Your task to perform on an android device: View the shopping cart on walmart.com. Search for lenovo thinkpad on walmart.com, select the first entry, and add it to the cart. Image 0: 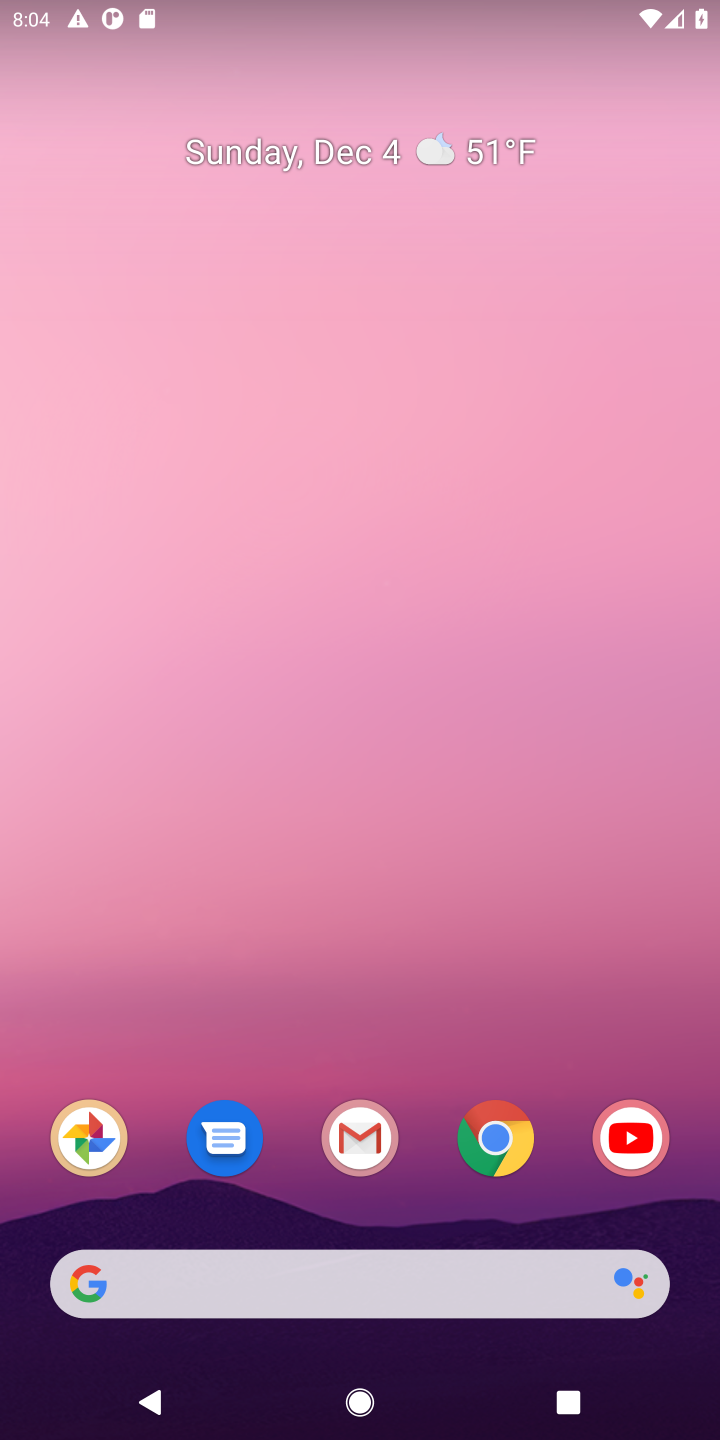
Step 0: click (487, 1135)
Your task to perform on an android device: View the shopping cart on walmart.com. Search for lenovo thinkpad on walmart.com, select the first entry, and add it to the cart. Image 1: 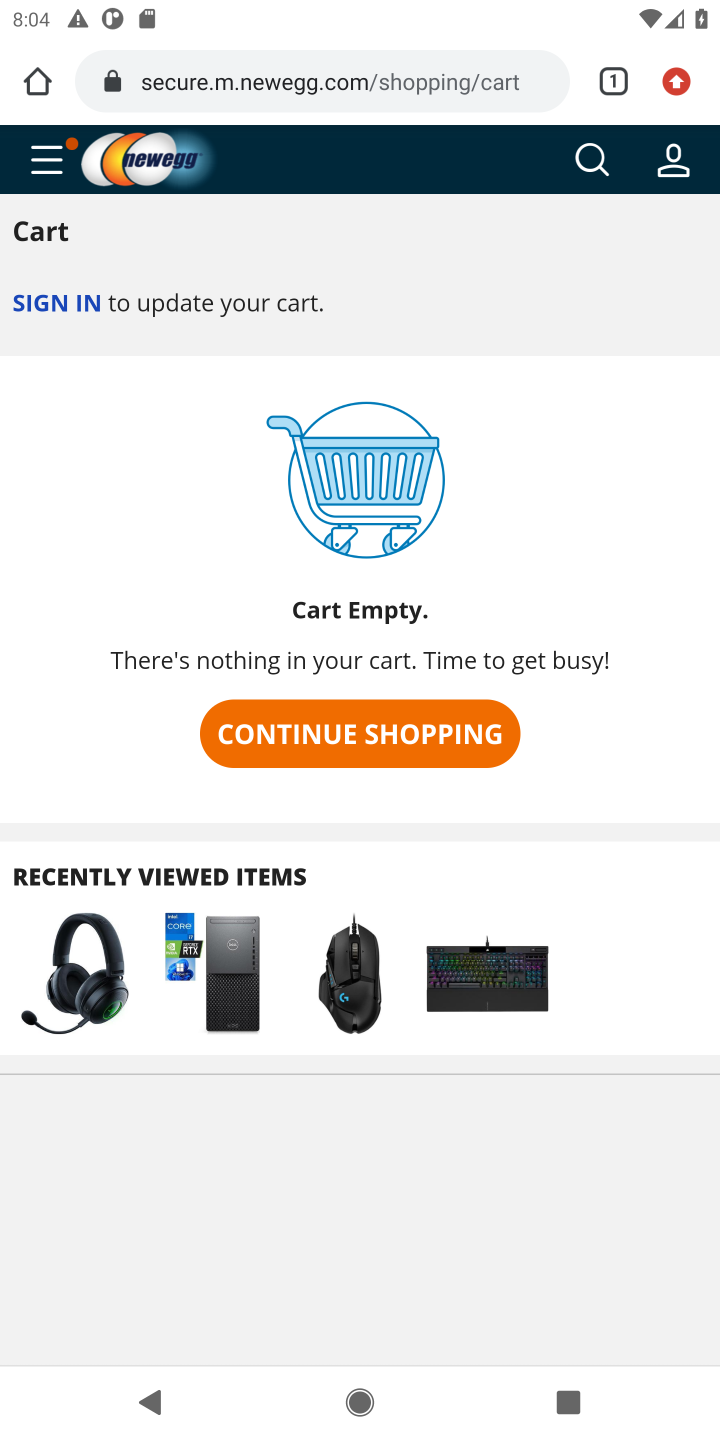
Step 1: click (590, 162)
Your task to perform on an android device: View the shopping cart on walmart.com. Search for lenovo thinkpad on walmart.com, select the first entry, and add it to the cart. Image 2: 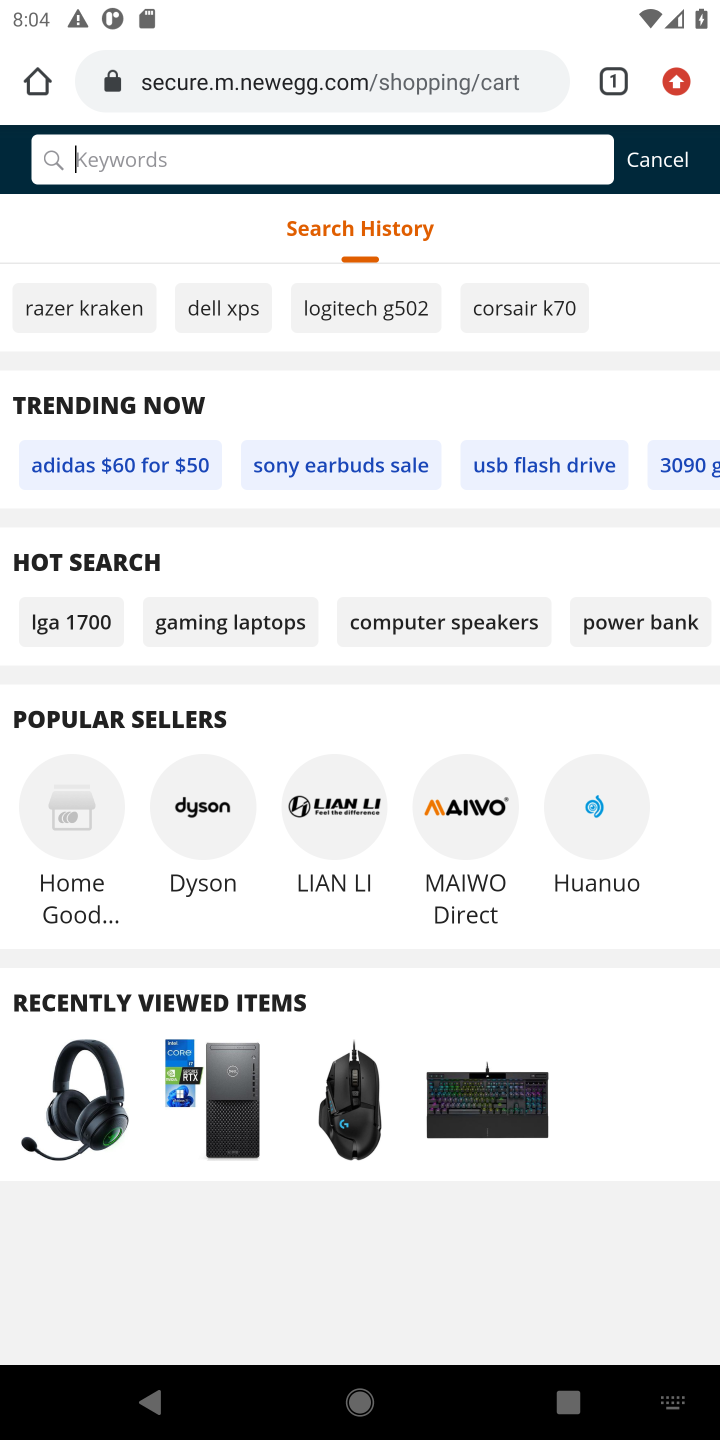
Step 2: click (429, 74)
Your task to perform on an android device: View the shopping cart on walmart.com. Search for lenovo thinkpad on walmart.com, select the first entry, and add it to the cart. Image 3: 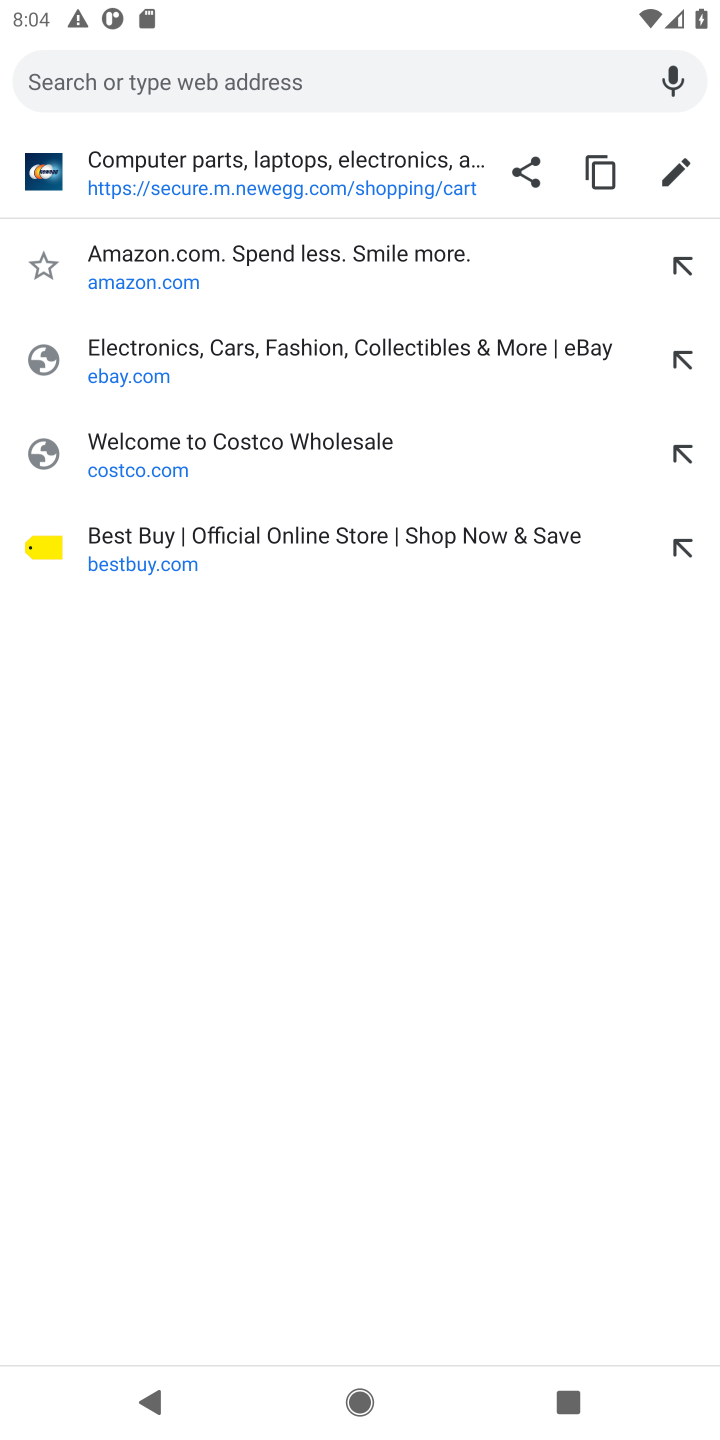
Step 3: type "walmart.com"
Your task to perform on an android device: View the shopping cart on walmart.com. Search for lenovo thinkpad on walmart.com, select the first entry, and add it to the cart. Image 4: 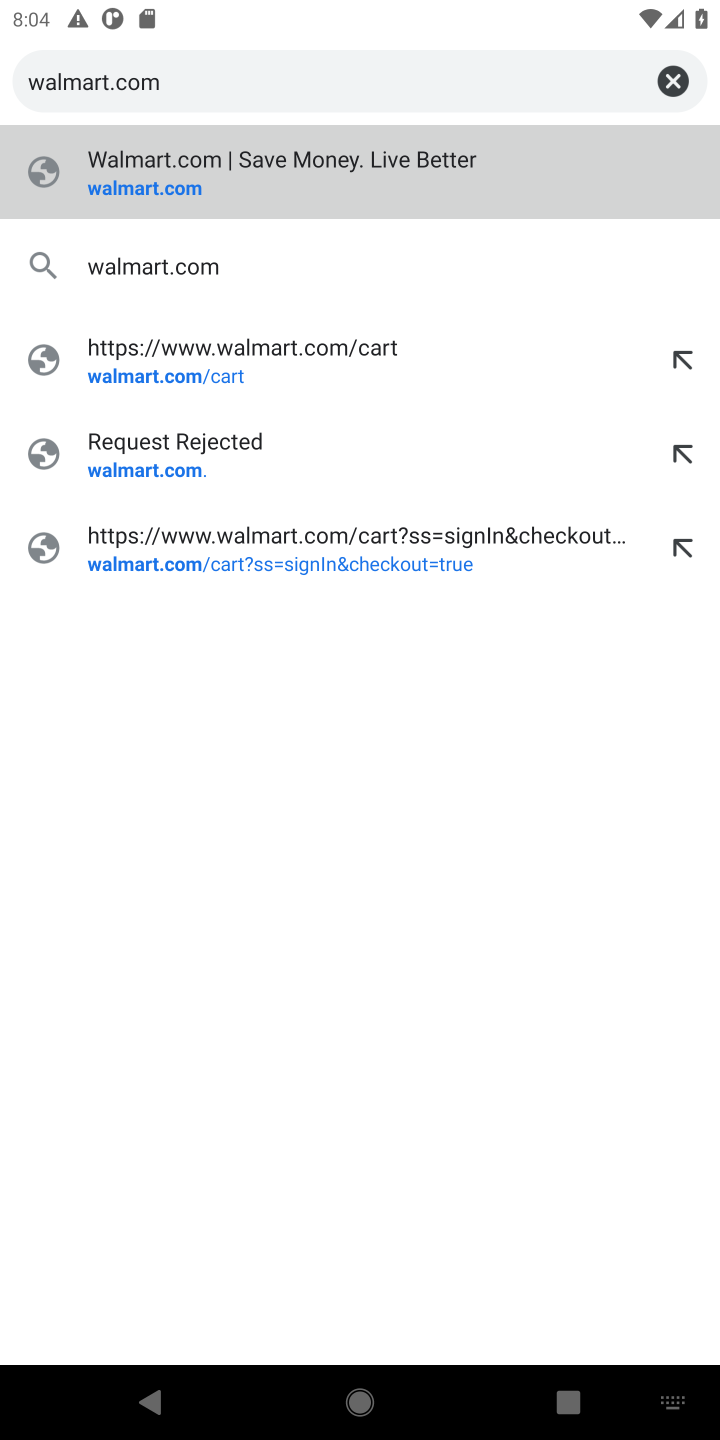
Step 4: press enter
Your task to perform on an android device: View the shopping cart on walmart.com. Search for lenovo thinkpad on walmart.com, select the first entry, and add it to the cart. Image 5: 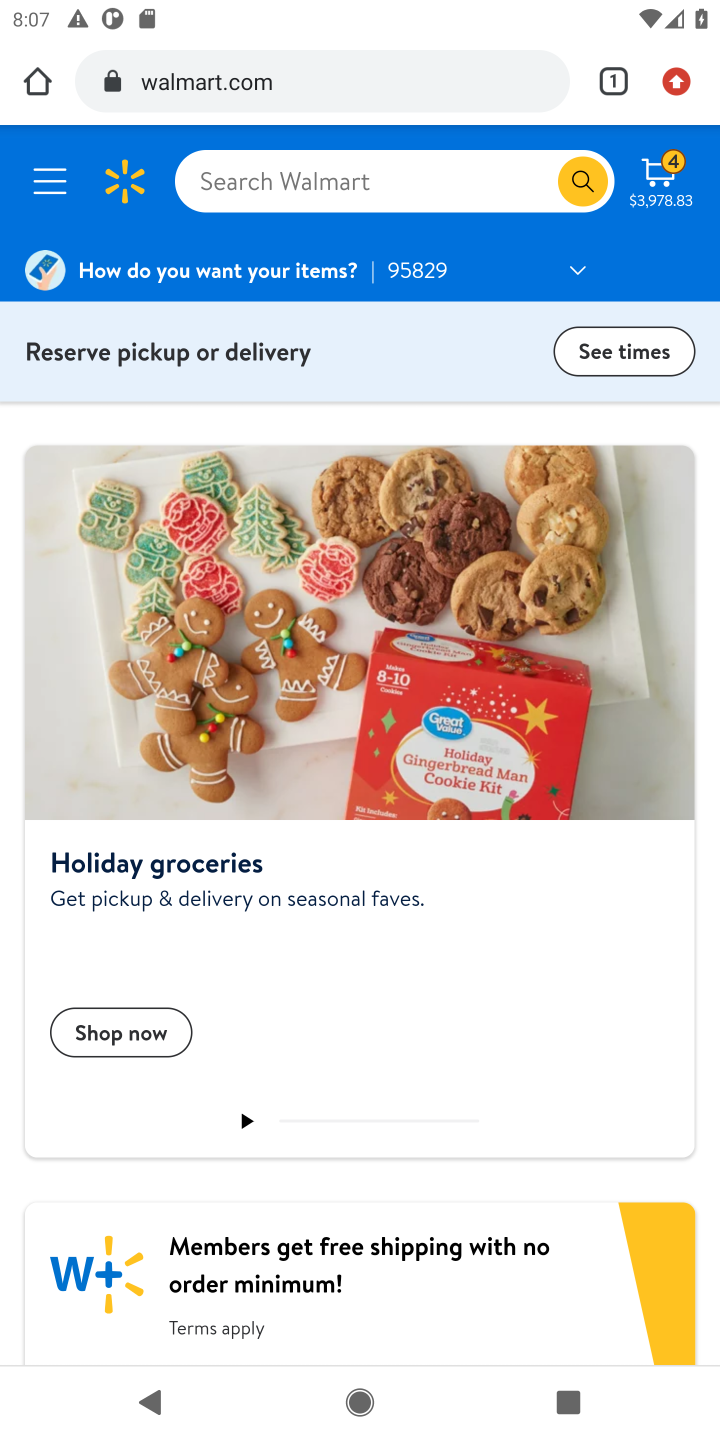
Step 5: click (390, 164)
Your task to perform on an android device: View the shopping cart on walmart.com. Search for lenovo thinkpad on walmart.com, select the first entry, and add it to the cart. Image 6: 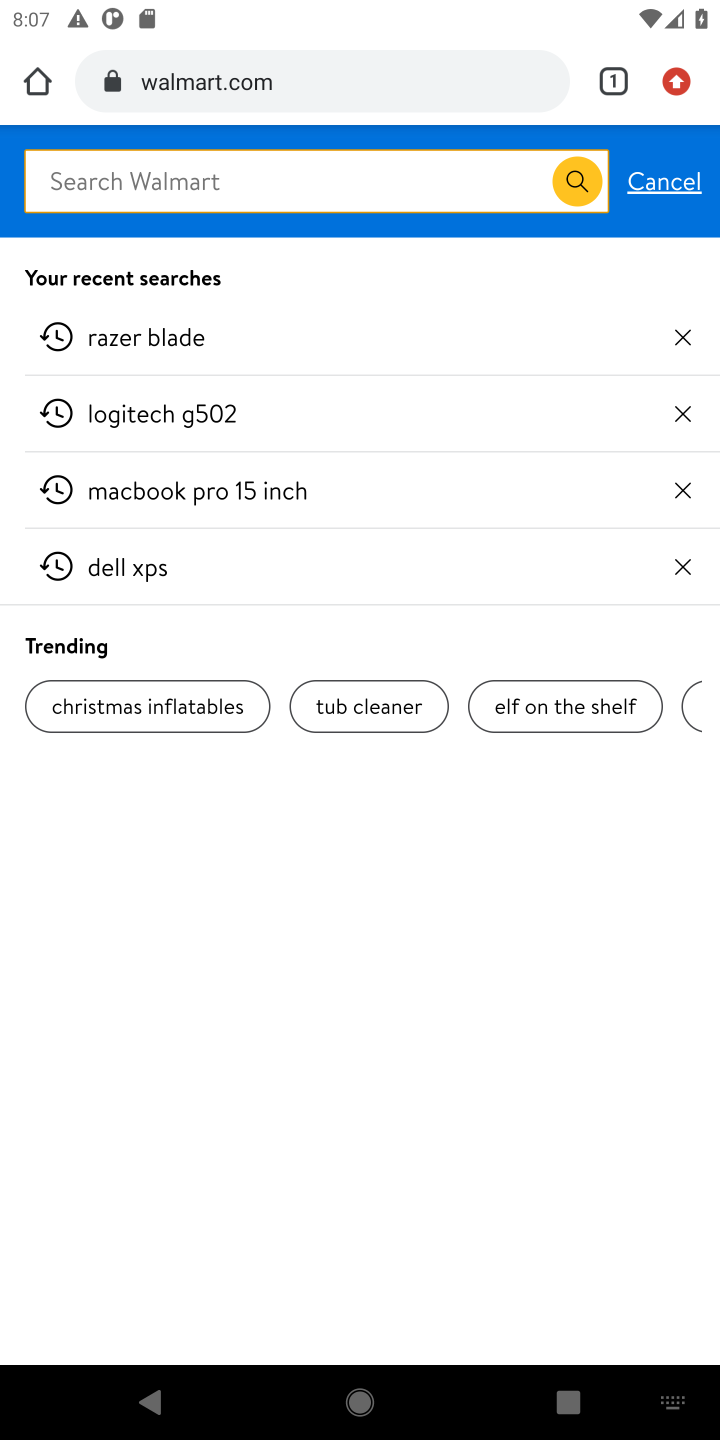
Step 6: type " lenovo thinkpad"
Your task to perform on an android device: View the shopping cart on walmart.com. Search for lenovo thinkpad on walmart.com, select the first entry, and add it to the cart. Image 7: 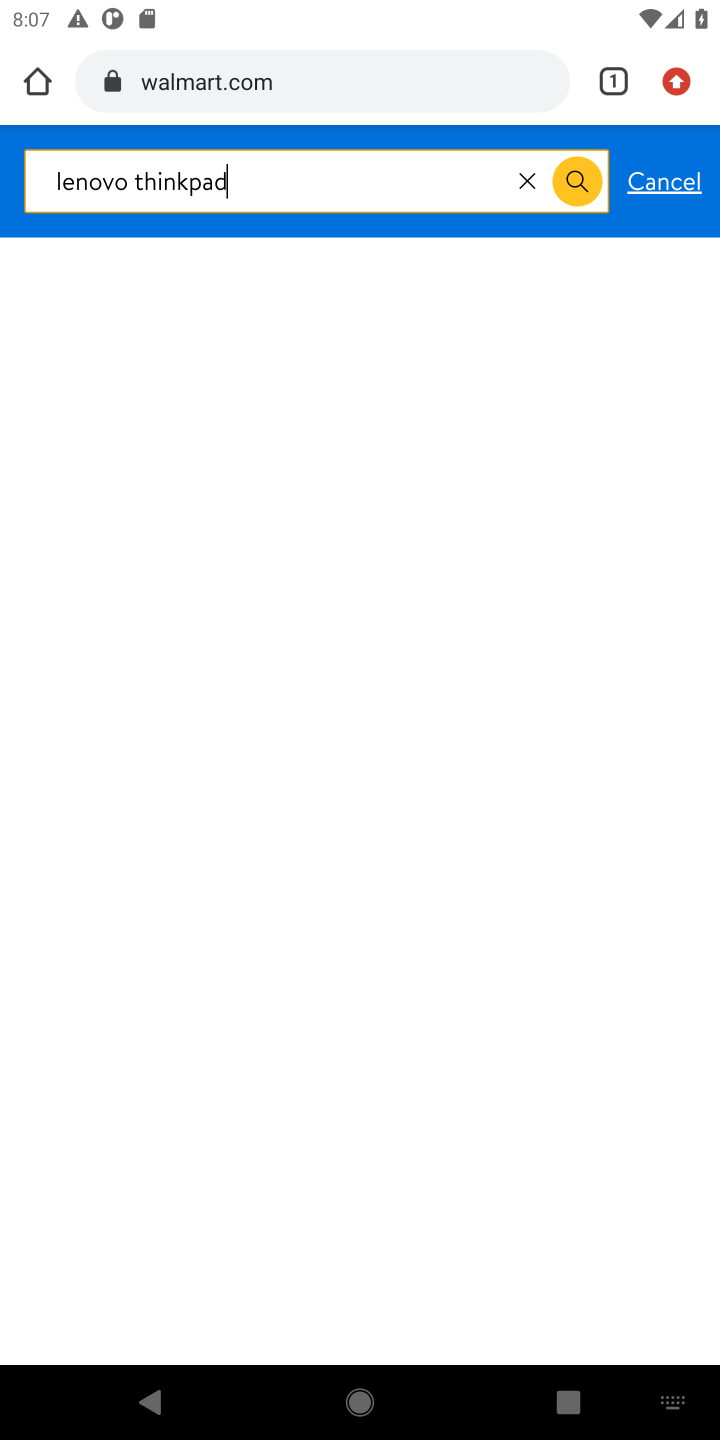
Step 7: press enter
Your task to perform on an android device: View the shopping cart on walmart.com. Search for lenovo thinkpad on walmart.com, select the first entry, and add it to the cart. Image 8: 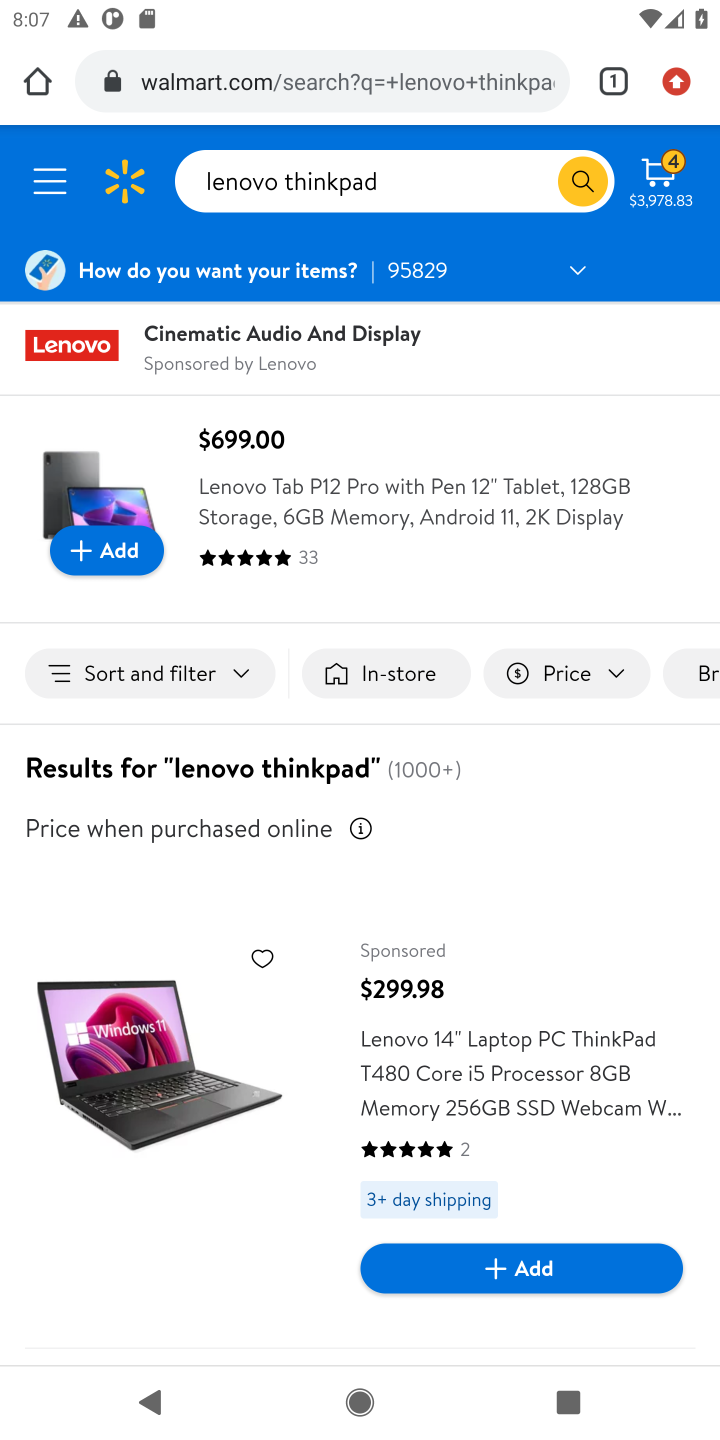
Step 8: drag from (589, 1076) to (556, 622)
Your task to perform on an android device: View the shopping cart on walmart.com. Search for lenovo thinkpad on walmart.com, select the first entry, and add it to the cart. Image 9: 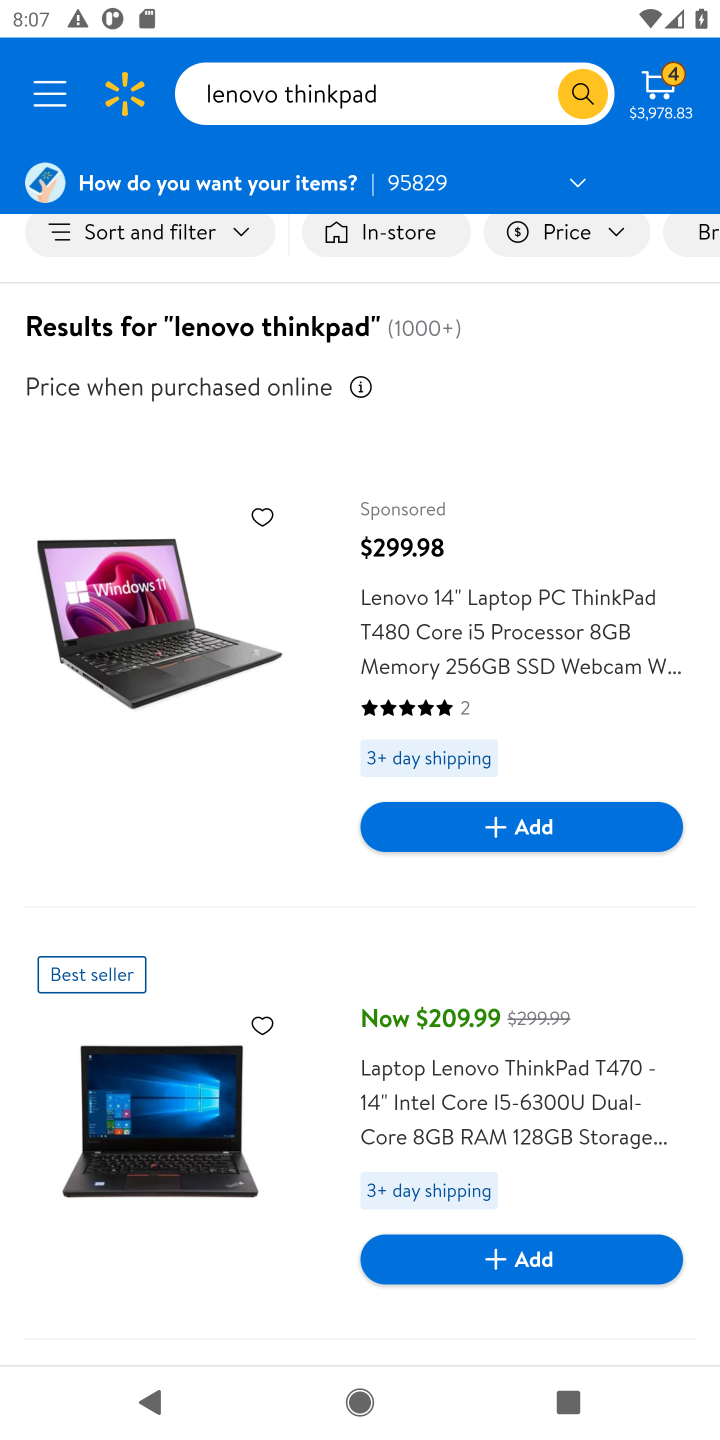
Step 9: click (176, 1114)
Your task to perform on an android device: View the shopping cart on walmart.com. Search for lenovo thinkpad on walmart.com, select the first entry, and add it to the cart. Image 10: 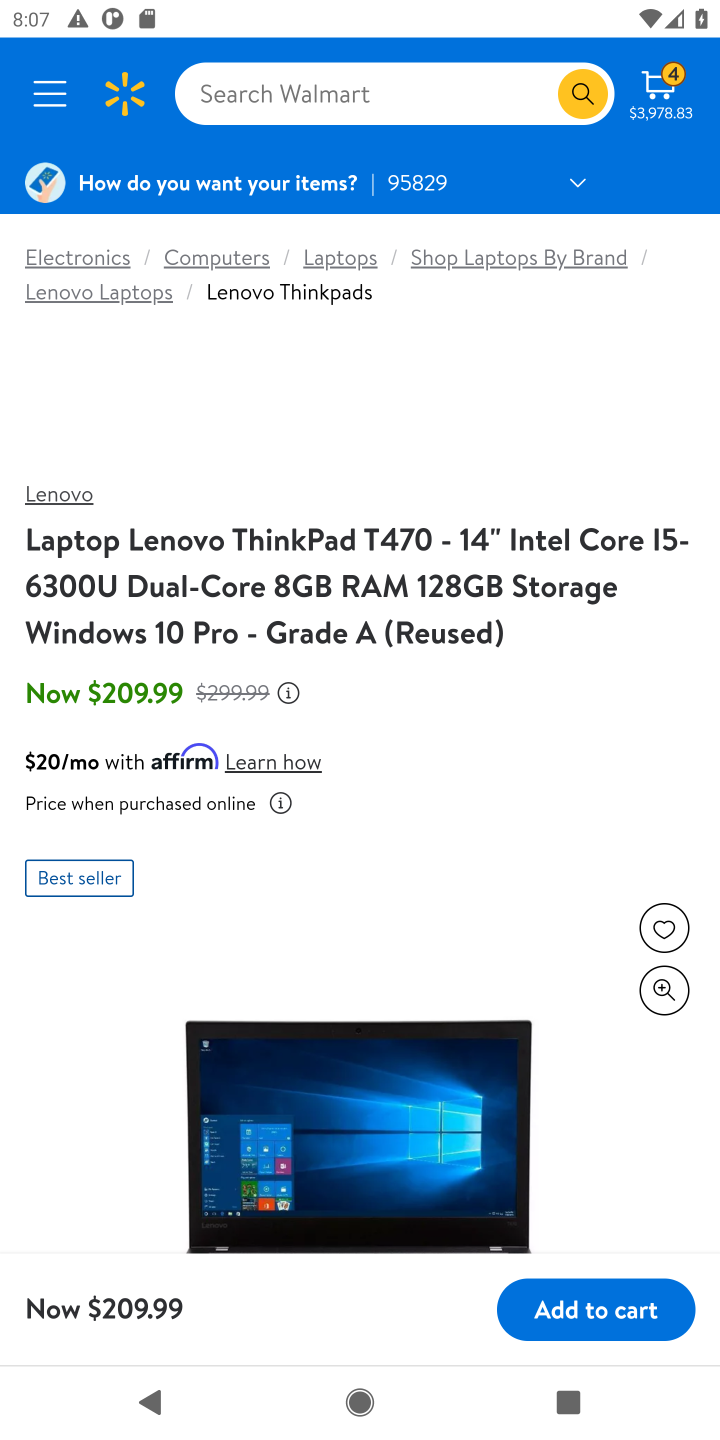
Step 10: click (600, 1309)
Your task to perform on an android device: View the shopping cart on walmart.com. Search for lenovo thinkpad on walmart.com, select the first entry, and add it to the cart. Image 11: 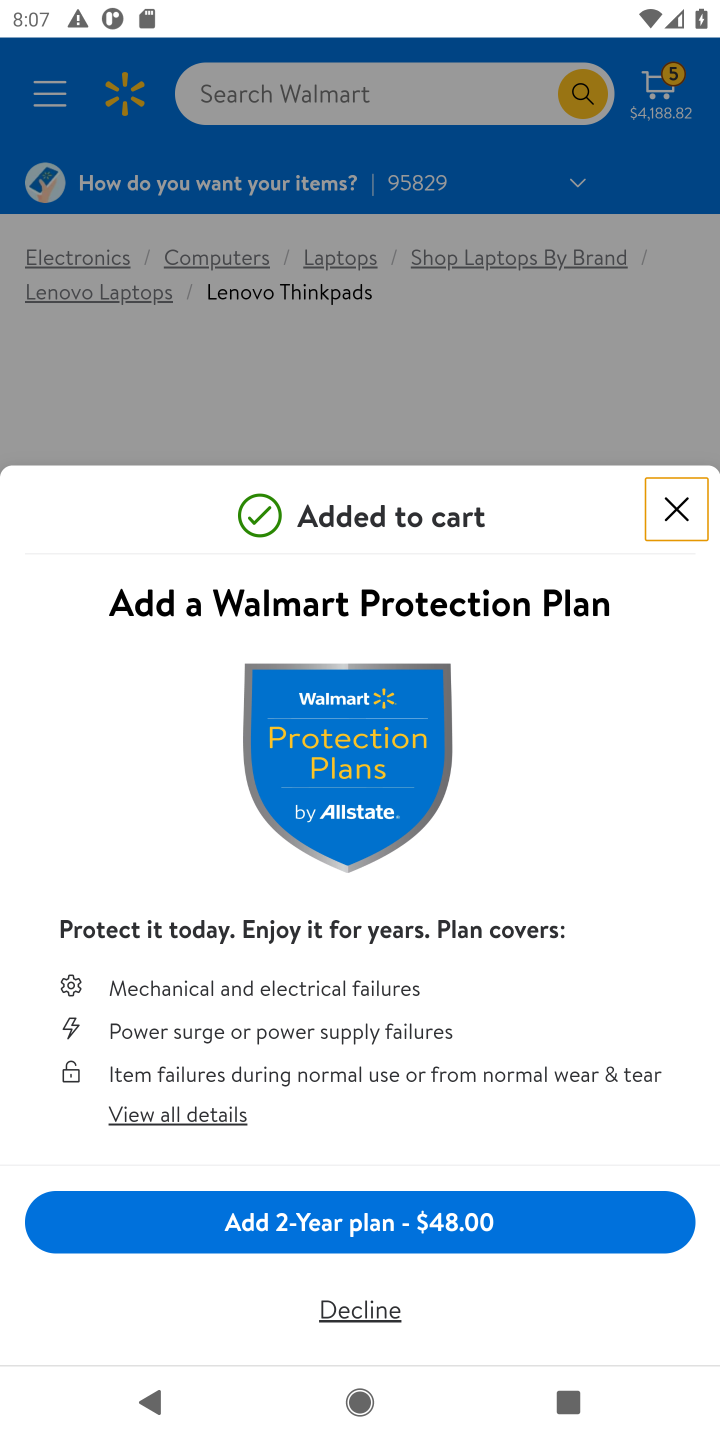
Step 11: task complete